Your task to perform on an android device: Open settings on Google Maps Image 0: 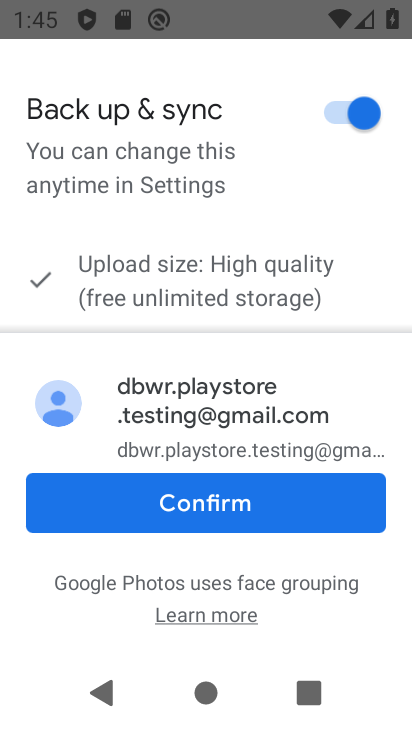
Step 0: press home button
Your task to perform on an android device: Open settings on Google Maps Image 1: 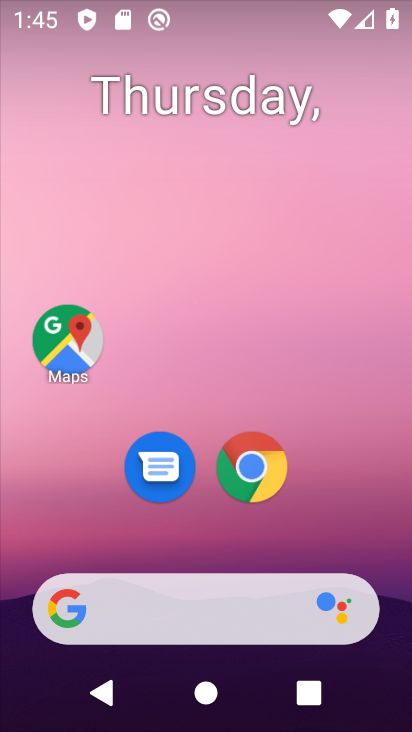
Step 1: drag from (328, 501) to (335, 222)
Your task to perform on an android device: Open settings on Google Maps Image 2: 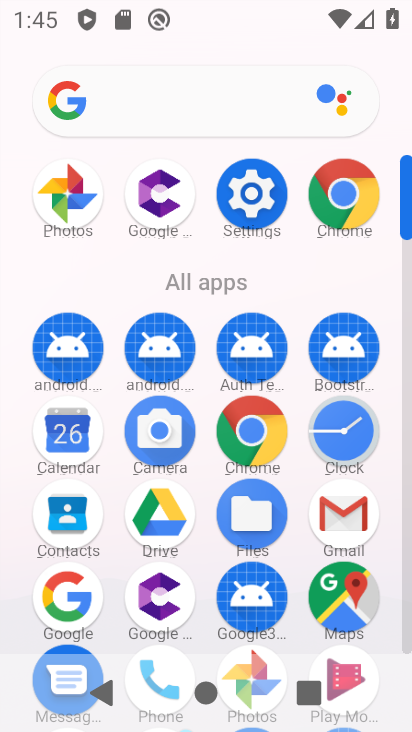
Step 2: click (345, 603)
Your task to perform on an android device: Open settings on Google Maps Image 3: 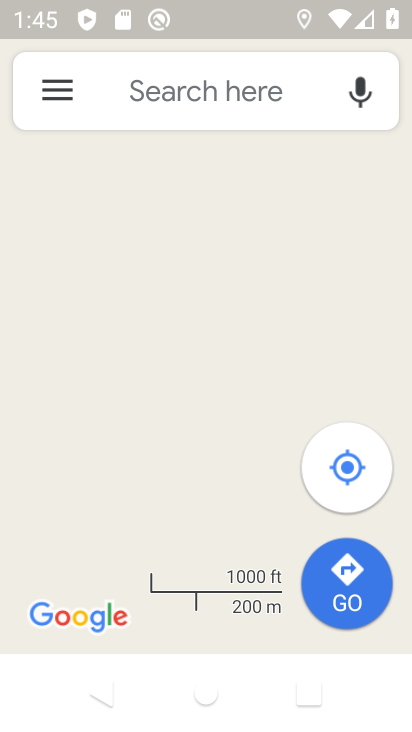
Step 3: click (45, 95)
Your task to perform on an android device: Open settings on Google Maps Image 4: 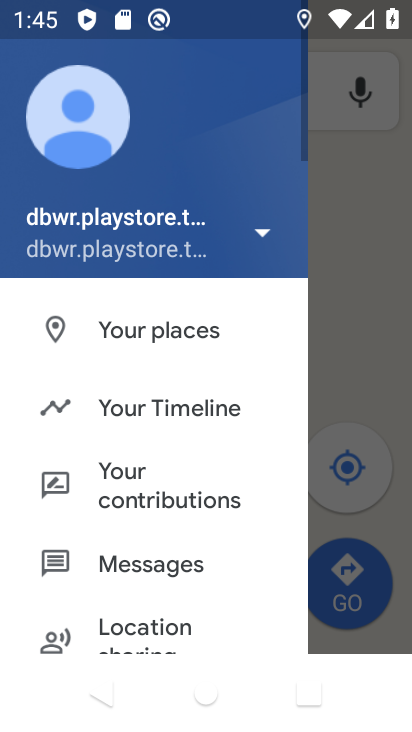
Step 4: click (121, 418)
Your task to perform on an android device: Open settings on Google Maps Image 5: 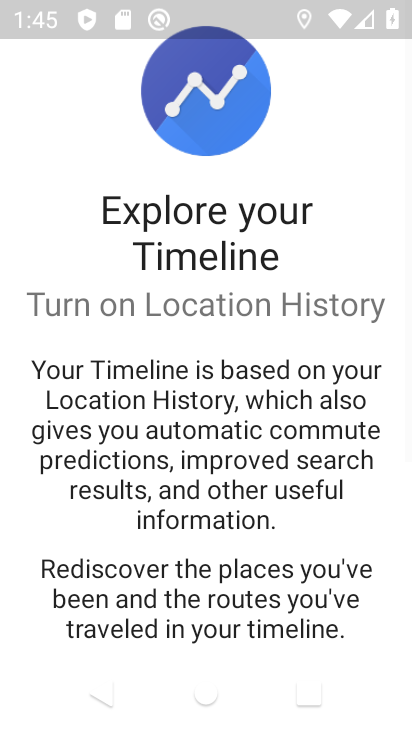
Step 5: drag from (150, 548) to (173, 294)
Your task to perform on an android device: Open settings on Google Maps Image 6: 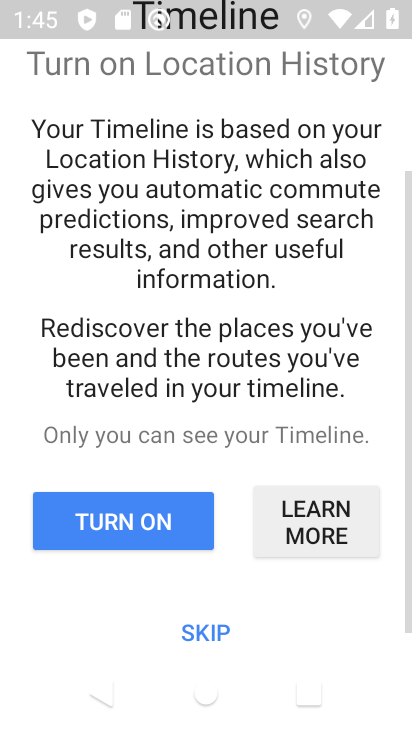
Step 6: drag from (226, 577) to (248, 300)
Your task to perform on an android device: Open settings on Google Maps Image 7: 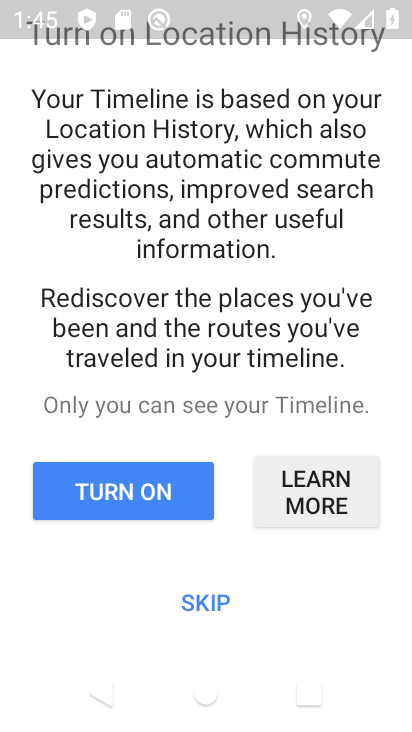
Step 7: click (215, 607)
Your task to perform on an android device: Open settings on Google Maps Image 8: 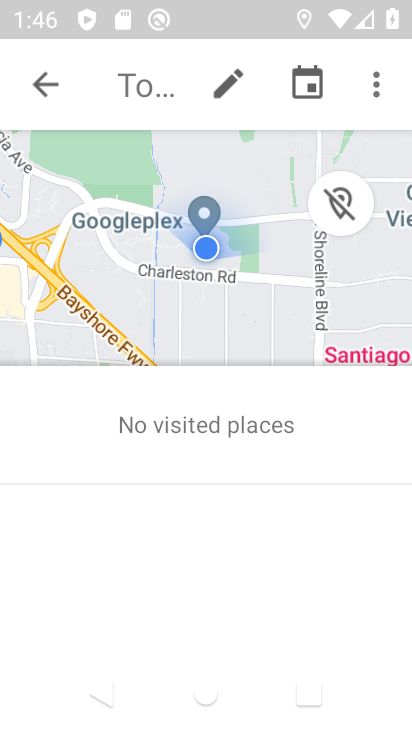
Step 8: click (382, 85)
Your task to perform on an android device: Open settings on Google Maps Image 9: 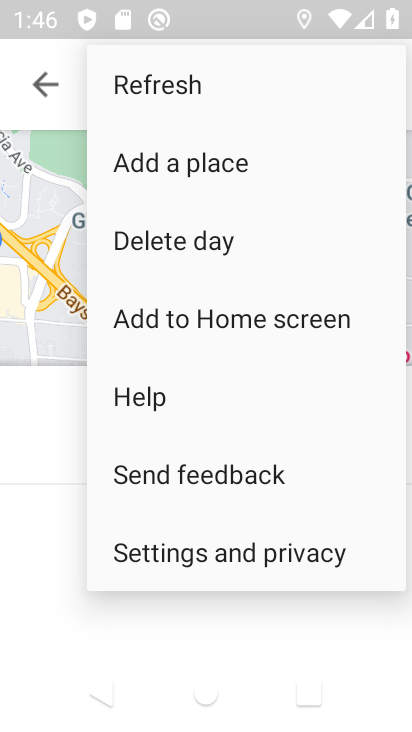
Step 9: click (235, 545)
Your task to perform on an android device: Open settings on Google Maps Image 10: 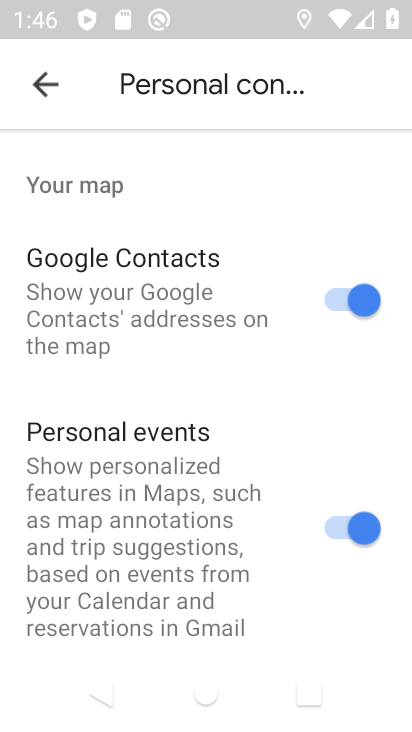
Step 10: task complete